Your task to perform on an android device: Open Chrome and go to settings Image 0: 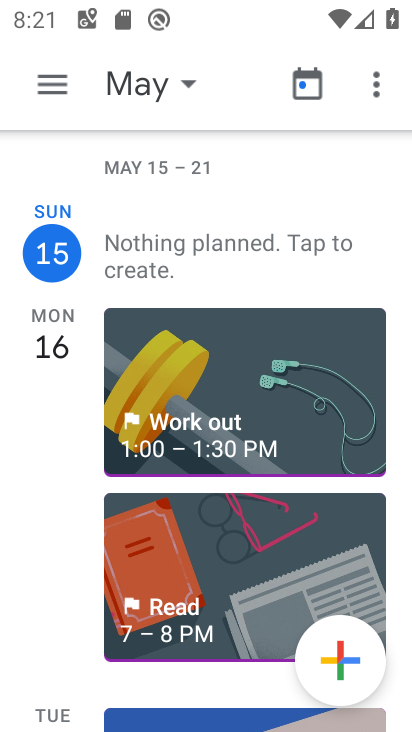
Step 0: press home button
Your task to perform on an android device: Open Chrome and go to settings Image 1: 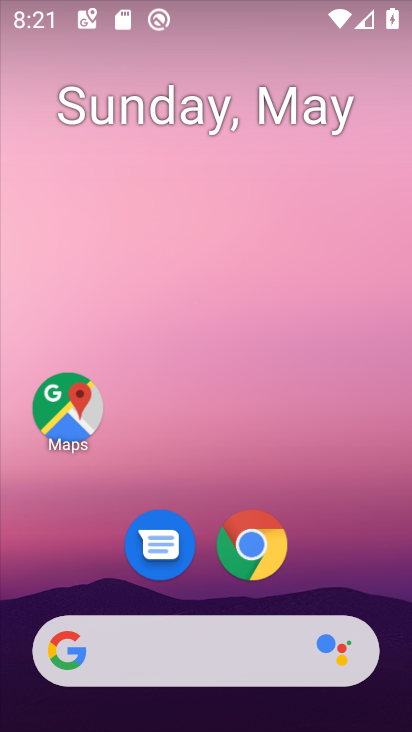
Step 1: click (250, 563)
Your task to perform on an android device: Open Chrome and go to settings Image 2: 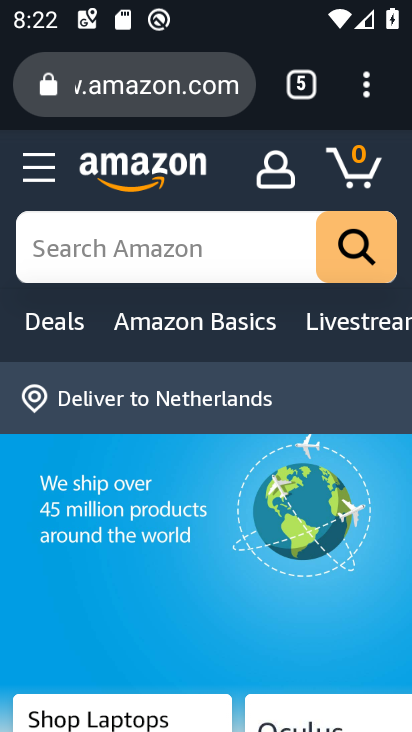
Step 2: task complete